Your task to perform on an android device: toggle pop-ups in chrome Image 0: 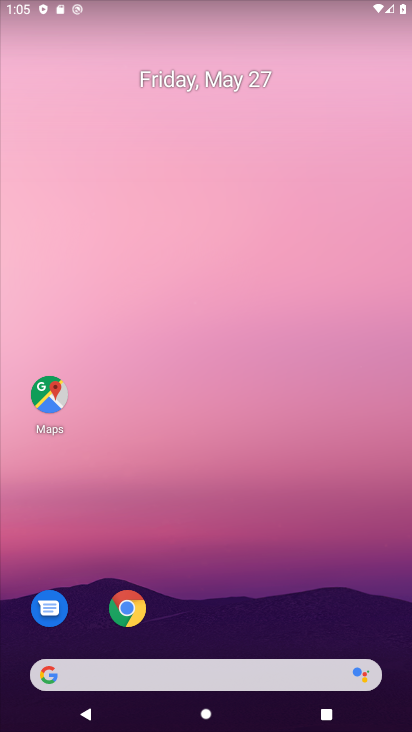
Step 0: click (116, 612)
Your task to perform on an android device: toggle pop-ups in chrome Image 1: 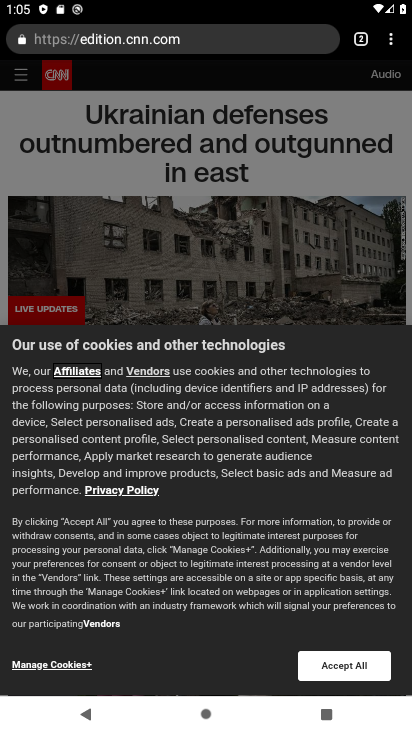
Step 1: drag from (391, 45) to (307, 439)
Your task to perform on an android device: toggle pop-ups in chrome Image 2: 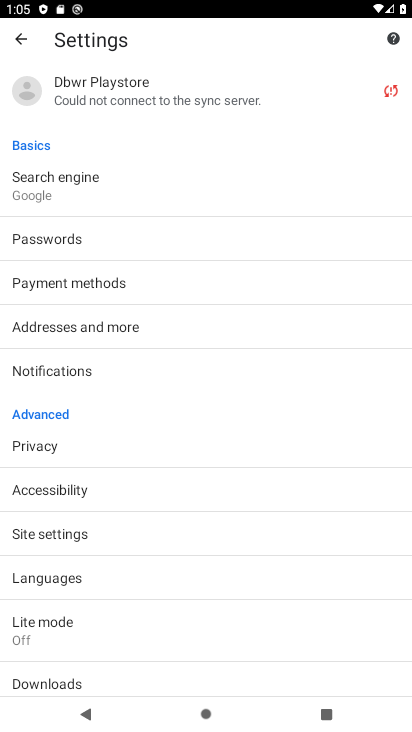
Step 2: click (71, 529)
Your task to perform on an android device: toggle pop-ups in chrome Image 3: 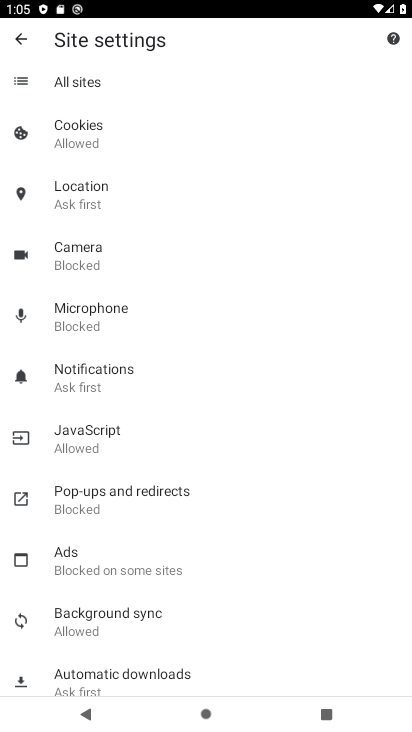
Step 3: click (93, 505)
Your task to perform on an android device: toggle pop-ups in chrome Image 4: 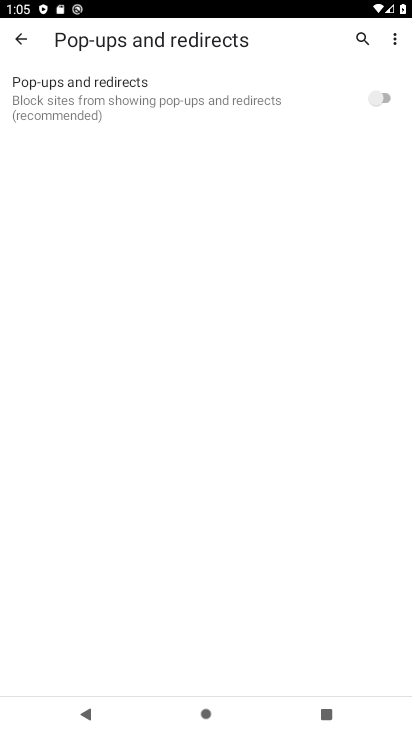
Step 4: click (381, 99)
Your task to perform on an android device: toggle pop-ups in chrome Image 5: 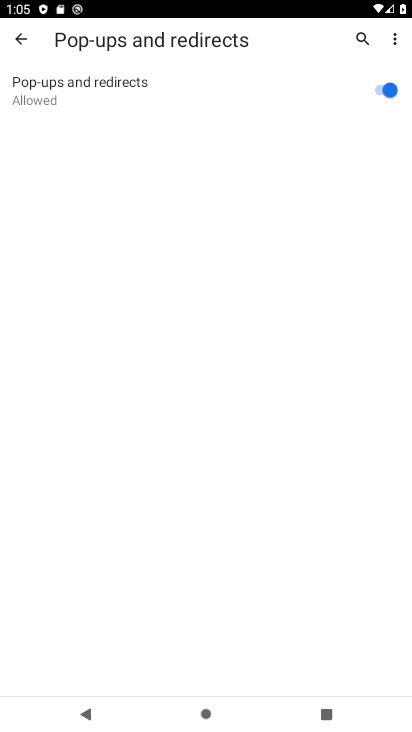
Step 5: task complete